Your task to perform on an android device: Open calendar and show me the third week of next month Image 0: 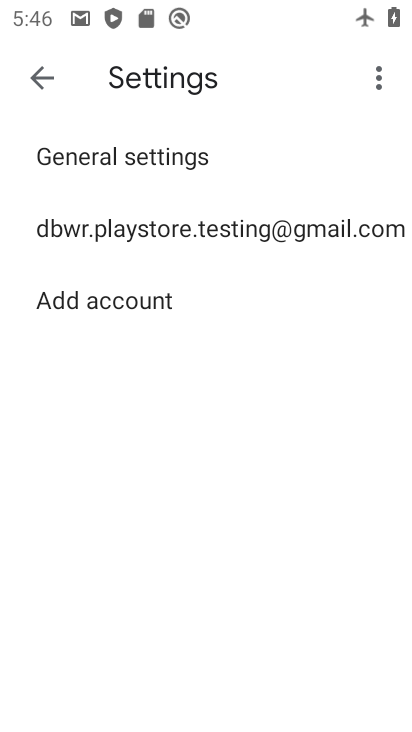
Step 0: press home button
Your task to perform on an android device: Open calendar and show me the third week of next month Image 1: 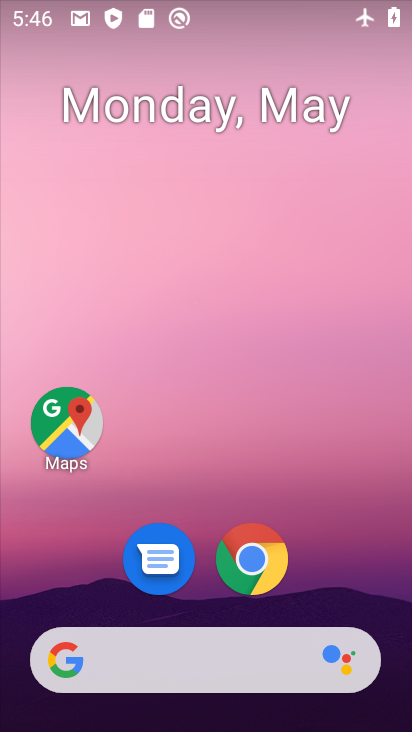
Step 1: drag from (310, 522) to (229, 24)
Your task to perform on an android device: Open calendar and show me the third week of next month Image 2: 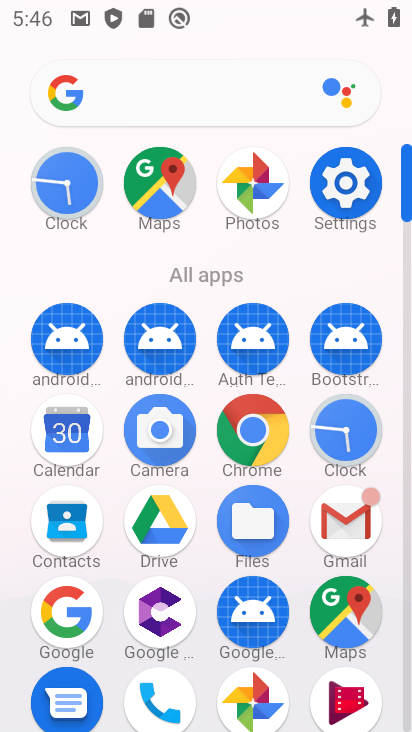
Step 2: click (56, 440)
Your task to perform on an android device: Open calendar and show me the third week of next month Image 3: 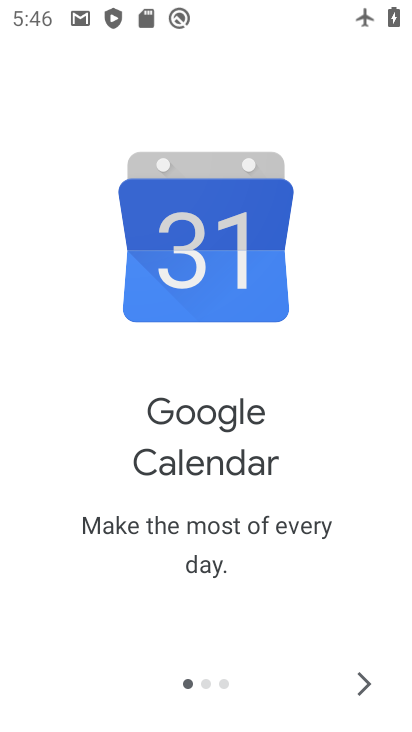
Step 3: click (366, 677)
Your task to perform on an android device: Open calendar and show me the third week of next month Image 4: 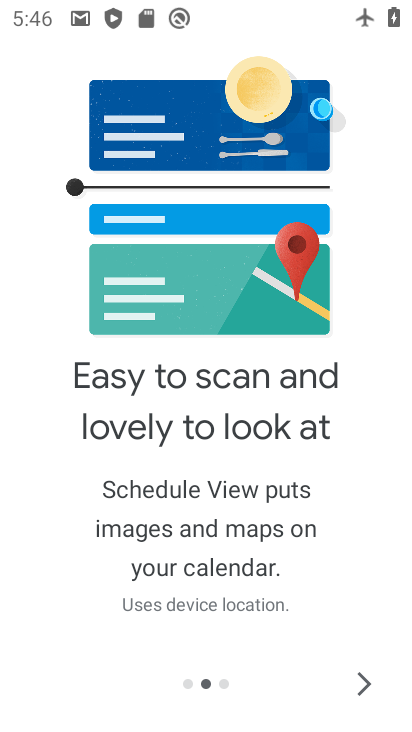
Step 4: click (366, 677)
Your task to perform on an android device: Open calendar and show me the third week of next month Image 5: 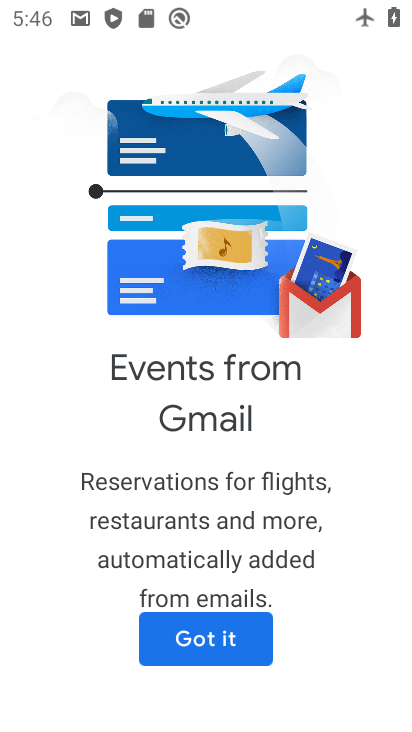
Step 5: click (230, 643)
Your task to perform on an android device: Open calendar and show me the third week of next month Image 6: 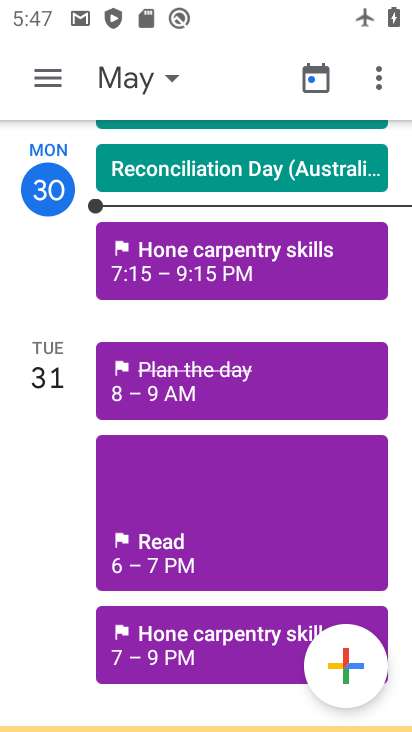
Step 6: click (175, 78)
Your task to perform on an android device: Open calendar and show me the third week of next month Image 7: 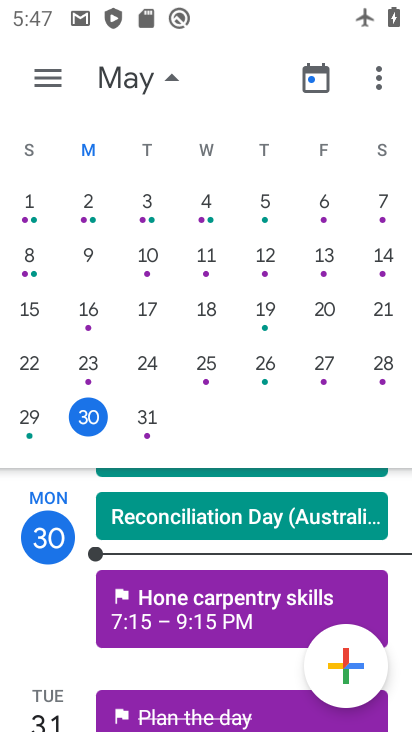
Step 7: drag from (370, 223) to (15, 287)
Your task to perform on an android device: Open calendar and show me the third week of next month Image 8: 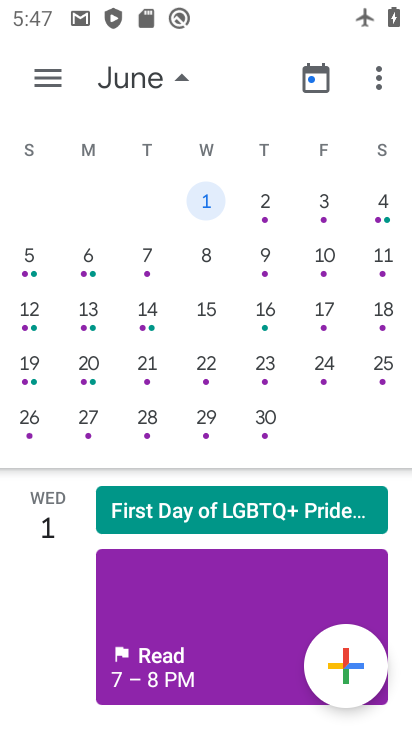
Step 8: click (155, 318)
Your task to perform on an android device: Open calendar and show me the third week of next month Image 9: 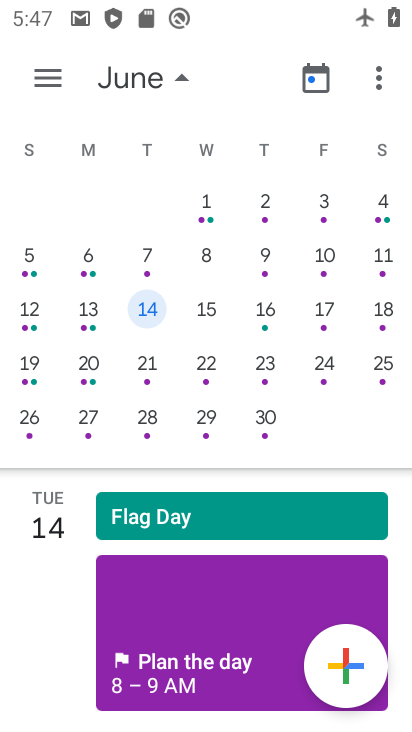
Step 9: click (51, 65)
Your task to perform on an android device: Open calendar and show me the third week of next month Image 10: 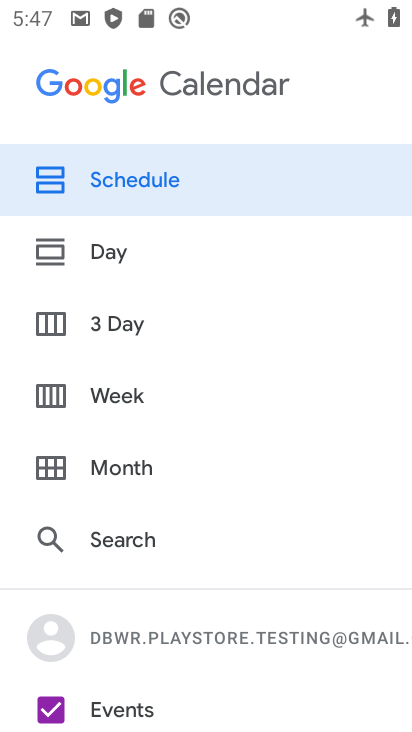
Step 10: click (108, 394)
Your task to perform on an android device: Open calendar and show me the third week of next month Image 11: 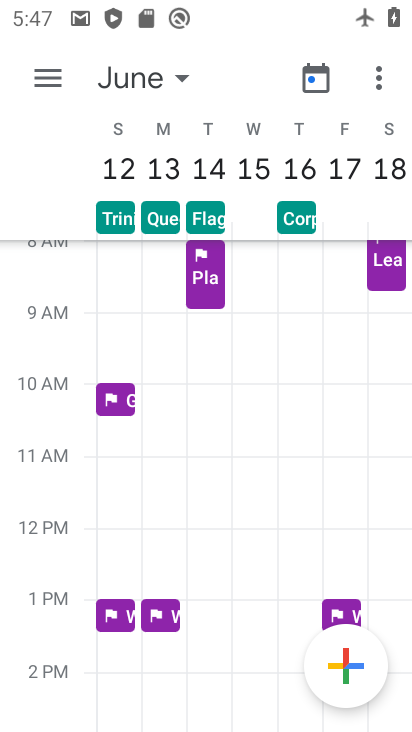
Step 11: task complete